Your task to perform on an android device: Go to Yahoo.com Image 0: 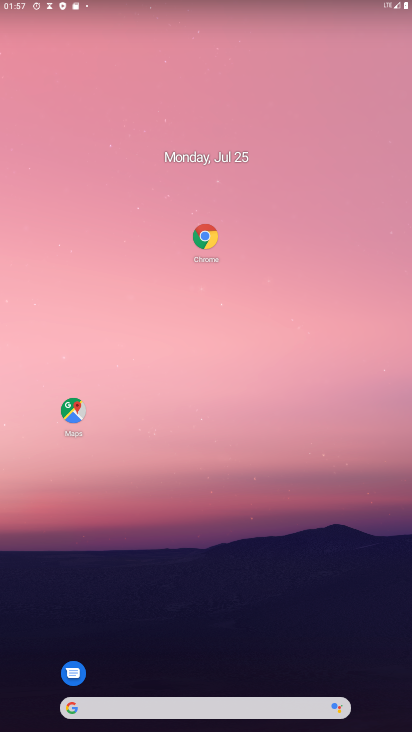
Step 0: drag from (210, 683) to (194, 6)
Your task to perform on an android device: Go to Yahoo.com Image 1: 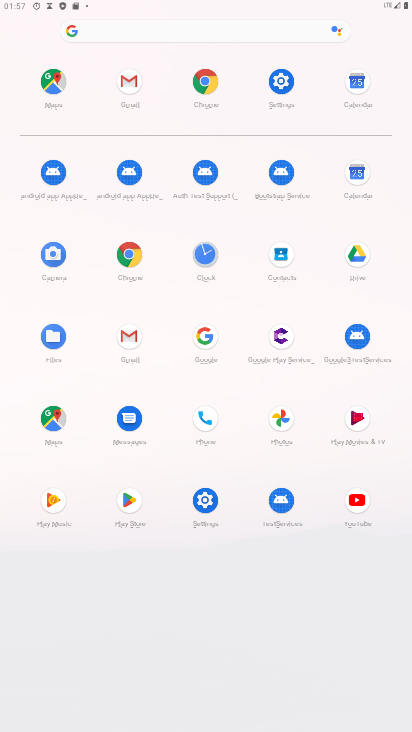
Step 1: click (132, 253)
Your task to perform on an android device: Go to Yahoo.com Image 2: 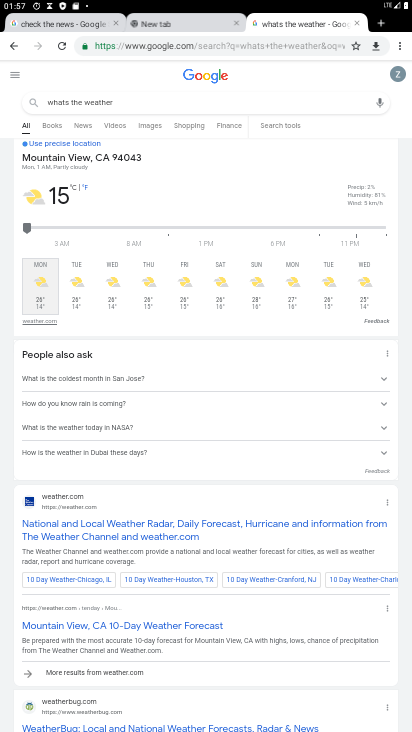
Step 2: click (215, 46)
Your task to perform on an android device: Go to Yahoo.com Image 3: 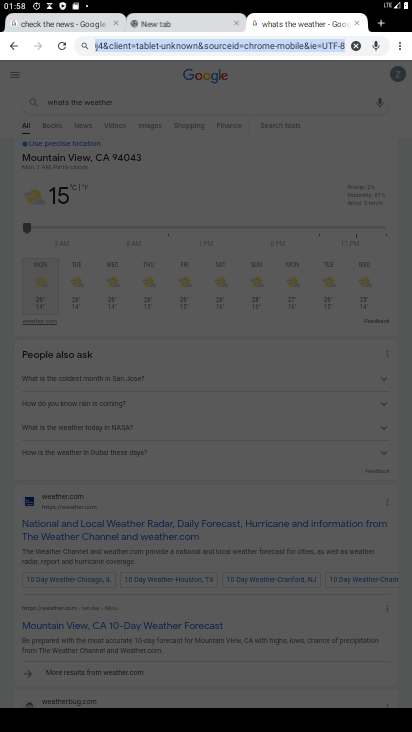
Step 3: type "yahoo.com"
Your task to perform on an android device: Go to Yahoo.com Image 4: 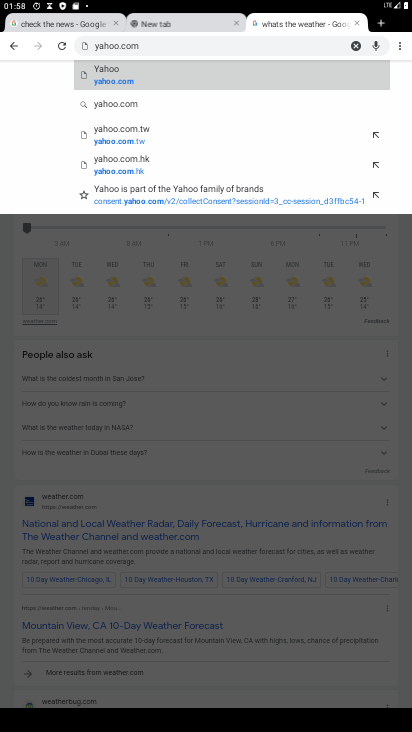
Step 4: click (155, 70)
Your task to perform on an android device: Go to Yahoo.com Image 5: 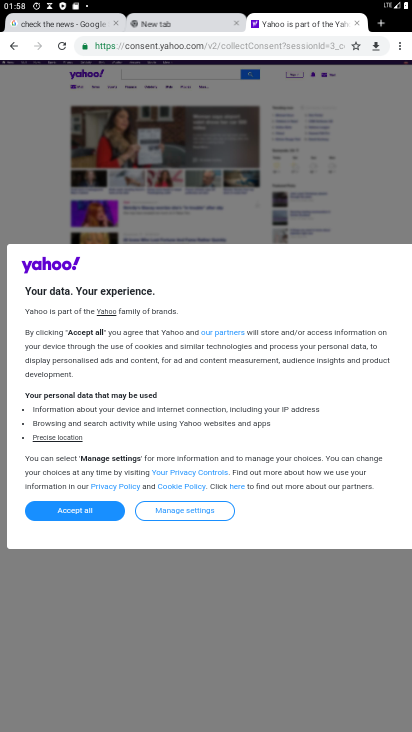
Step 5: task complete